Your task to perform on an android device: toggle location history Image 0: 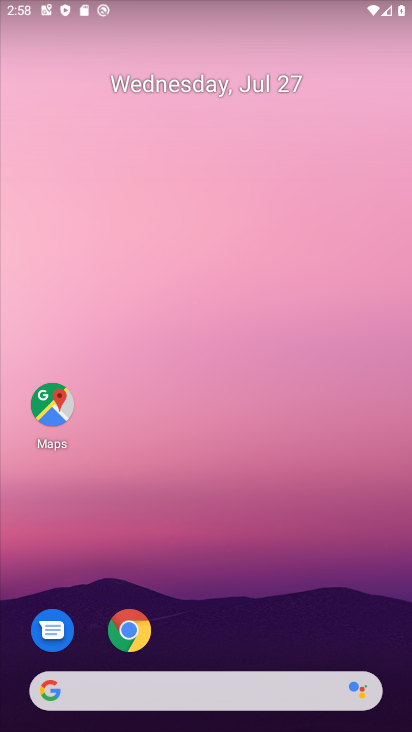
Step 0: drag from (356, 695) to (167, 54)
Your task to perform on an android device: toggle location history Image 1: 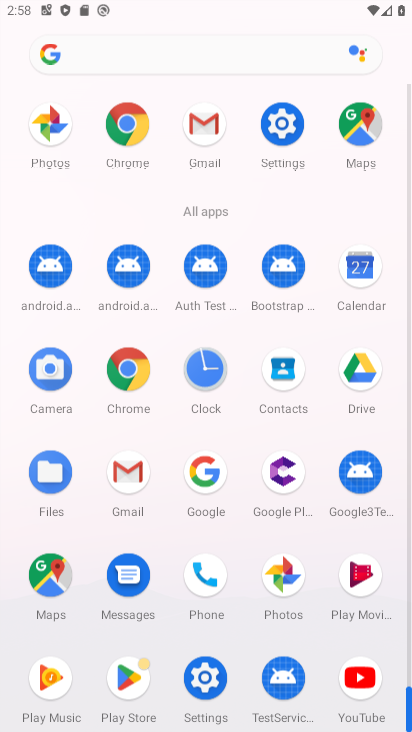
Step 1: drag from (199, 384) to (211, 32)
Your task to perform on an android device: toggle location history Image 2: 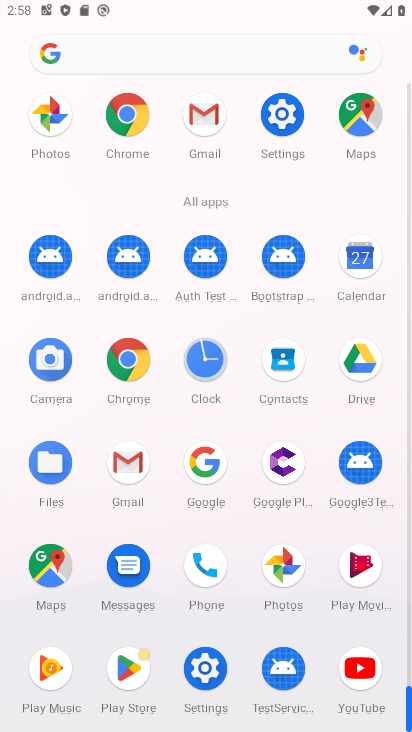
Step 2: click (269, 123)
Your task to perform on an android device: toggle location history Image 3: 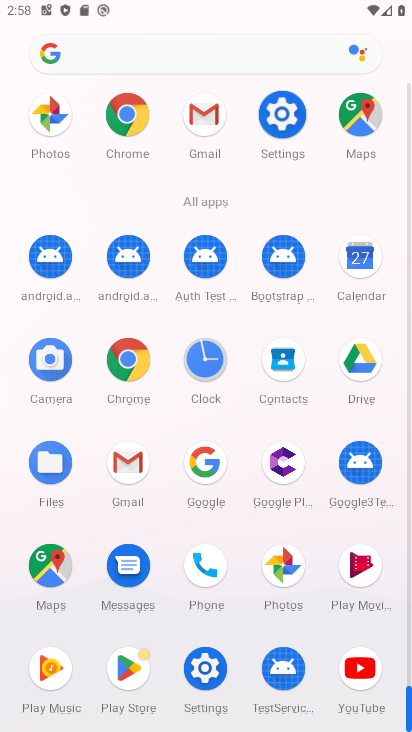
Step 3: click (271, 125)
Your task to perform on an android device: toggle location history Image 4: 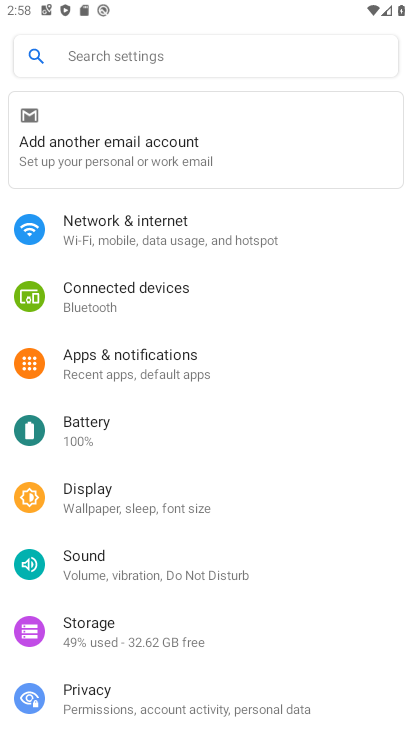
Step 4: drag from (116, 670) to (119, 276)
Your task to perform on an android device: toggle location history Image 5: 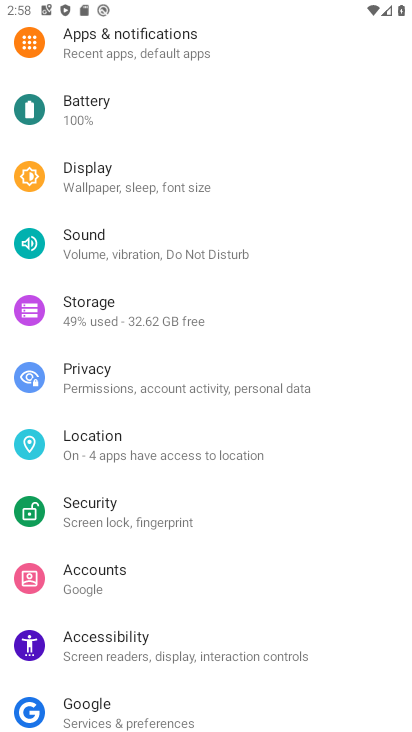
Step 5: drag from (159, 628) to (150, 303)
Your task to perform on an android device: toggle location history Image 6: 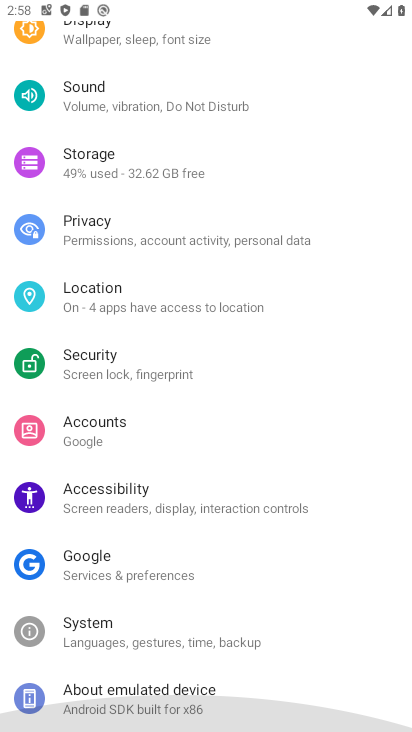
Step 6: drag from (184, 527) to (181, 322)
Your task to perform on an android device: toggle location history Image 7: 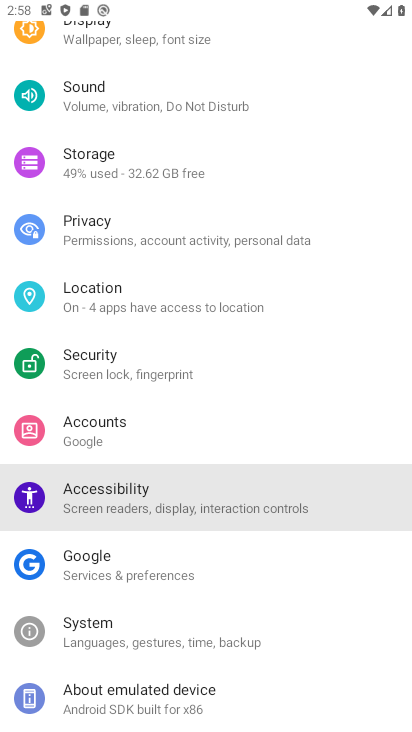
Step 7: drag from (181, 585) to (180, 368)
Your task to perform on an android device: toggle location history Image 8: 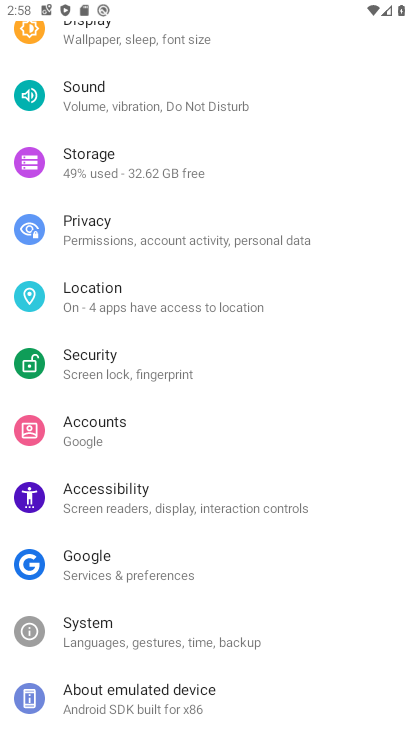
Step 8: click (118, 300)
Your task to perform on an android device: toggle location history Image 9: 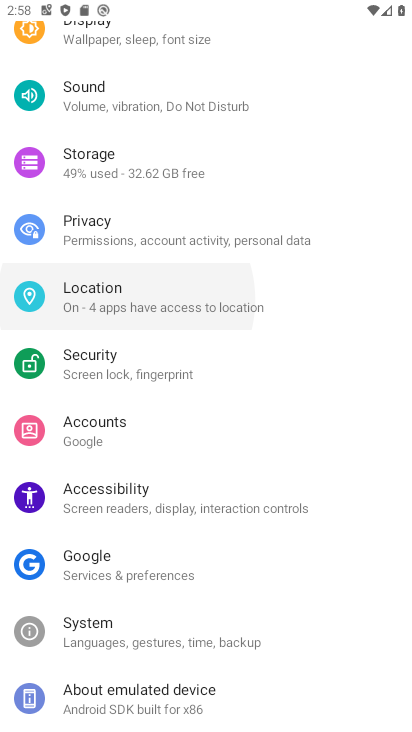
Step 9: click (116, 299)
Your task to perform on an android device: toggle location history Image 10: 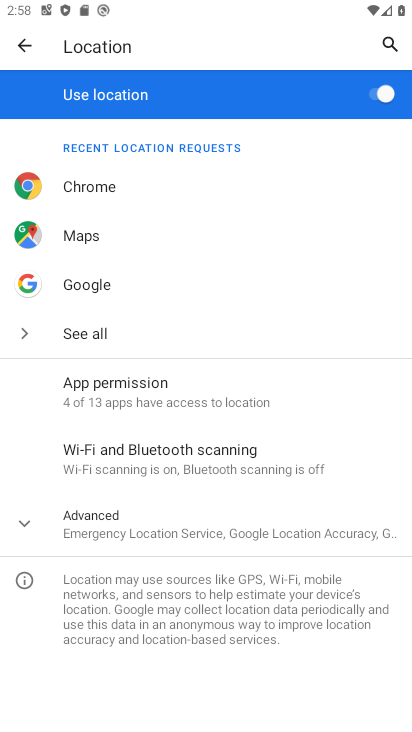
Step 10: click (106, 523)
Your task to perform on an android device: toggle location history Image 11: 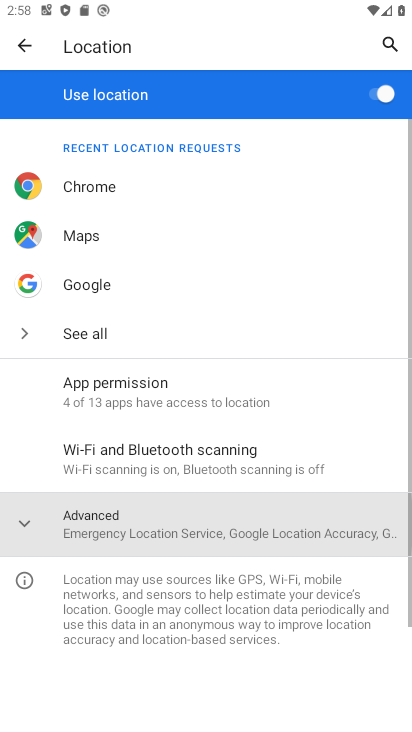
Step 11: click (109, 518)
Your task to perform on an android device: toggle location history Image 12: 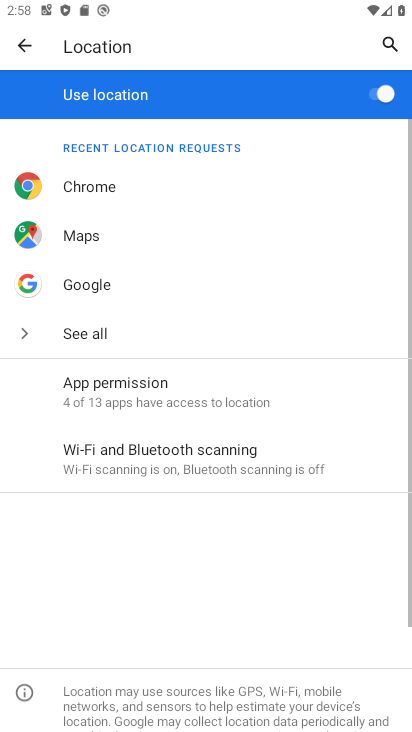
Step 12: click (109, 518)
Your task to perform on an android device: toggle location history Image 13: 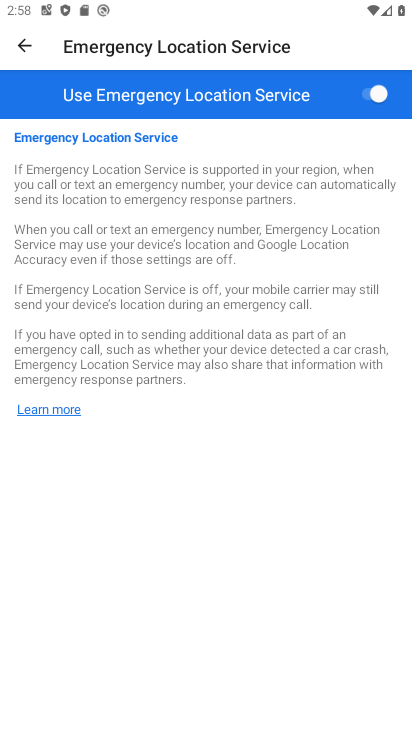
Step 13: click (23, 37)
Your task to perform on an android device: toggle location history Image 14: 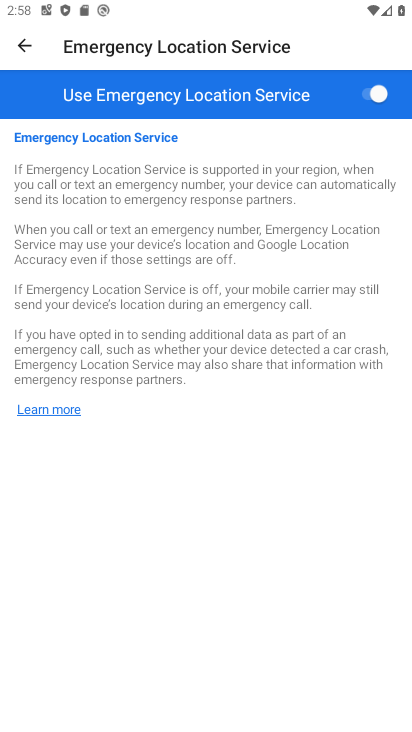
Step 14: click (12, 51)
Your task to perform on an android device: toggle location history Image 15: 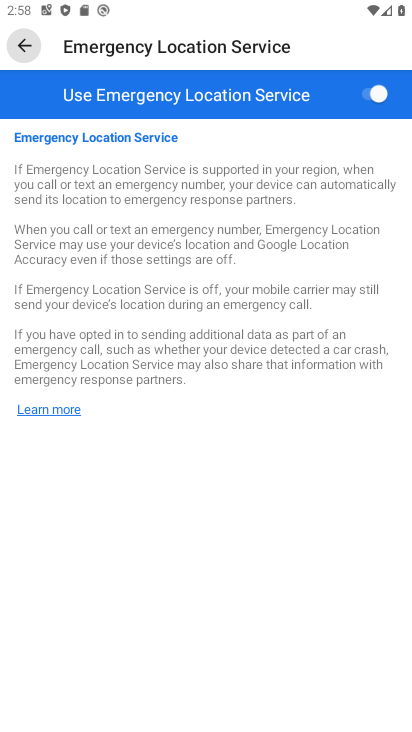
Step 15: click (17, 48)
Your task to perform on an android device: toggle location history Image 16: 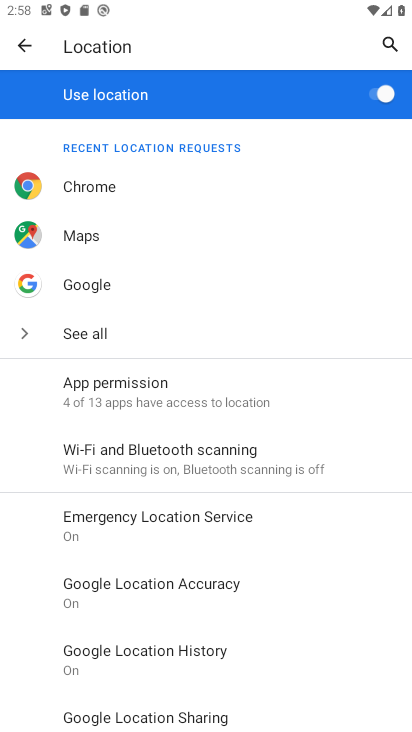
Step 16: click (165, 646)
Your task to perform on an android device: toggle location history Image 17: 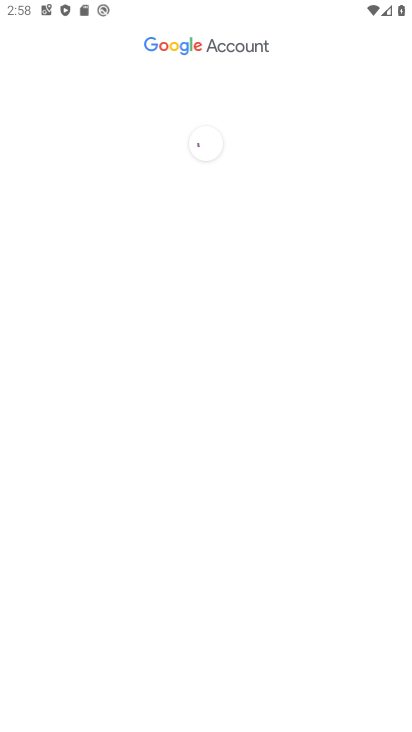
Step 17: click (26, 44)
Your task to perform on an android device: toggle location history Image 18: 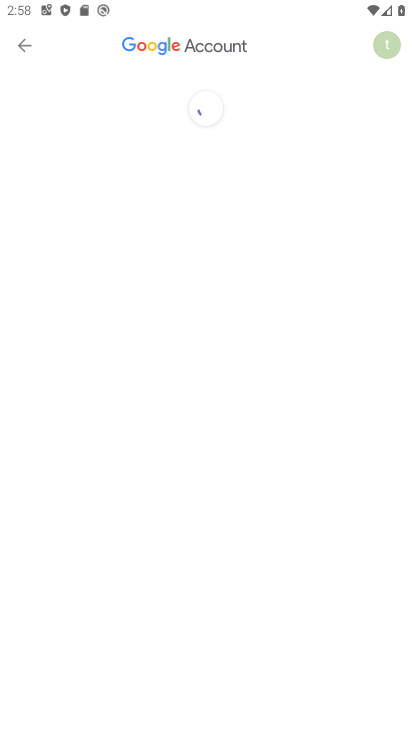
Step 18: click (29, 42)
Your task to perform on an android device: toggle location history Image 19: 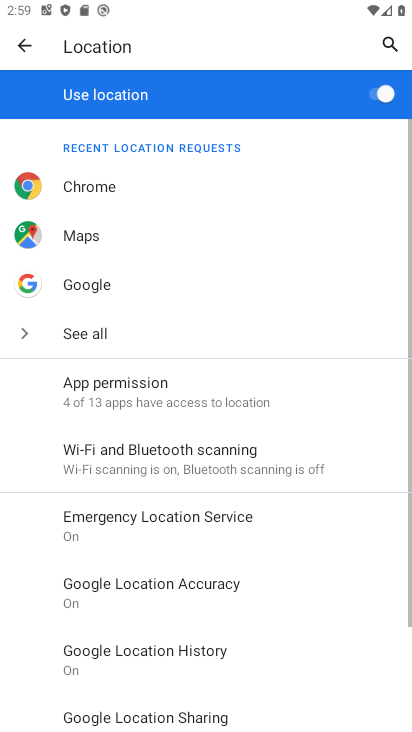
Step 19: click (173, 640)
Your task to perform on an android device: toggle location history Image 20: 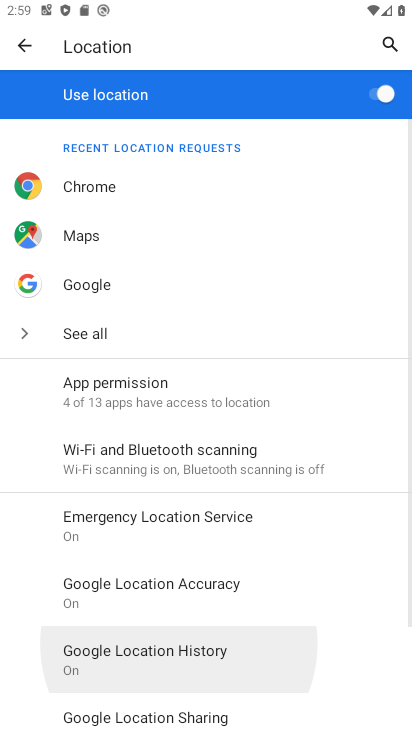
Step 20: click (173, 641)
Your task to perform on an android device: toggle location history Image 21: 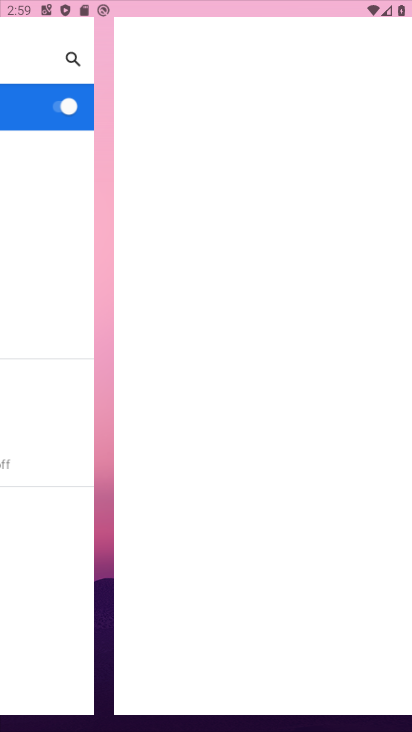
Step 21: click (175, 642)
Your task to perform on an android device: toggle location history Image 22: 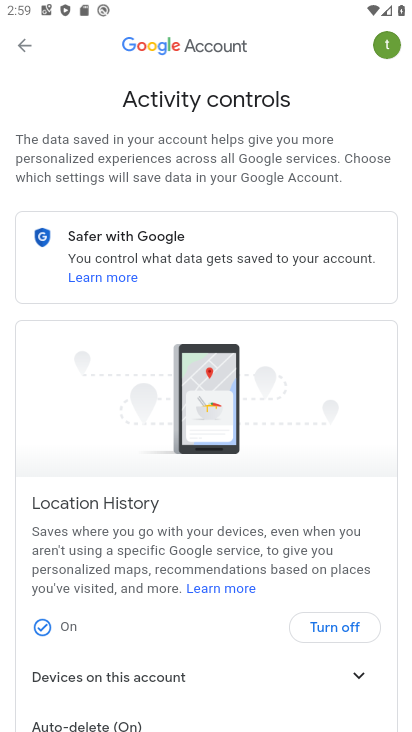
Step 22: click (329, 620)
Your task to perform on an android device: toggle location history Image 23: 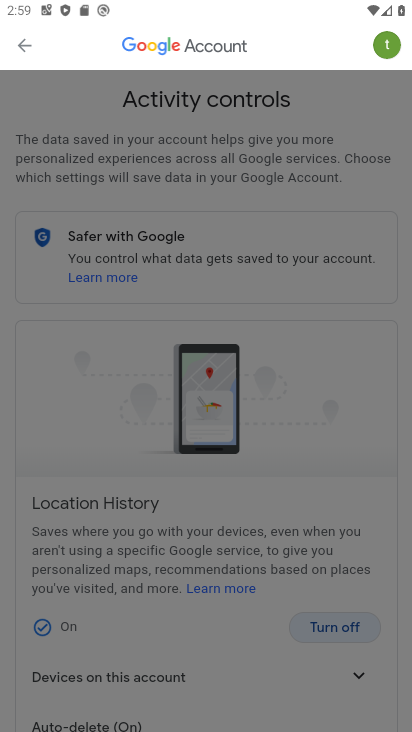
Step 23: task complete